Your task to perform on an android device: Clear the shopping cart on ebay. Add "macbook pro 13 inch" to the cart on ebay Image 0: 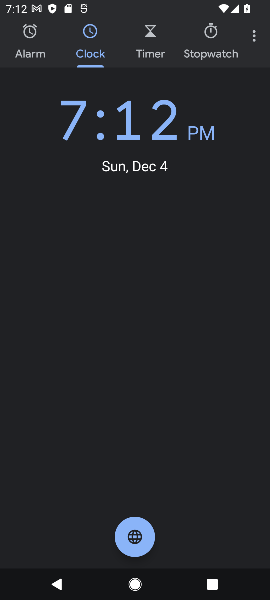
Step 0: press home button
Your task to perform on an android device: Clear the shopping cart on ebay. Add "macbook pro 13 inch" to the cart on ebay Image 1: 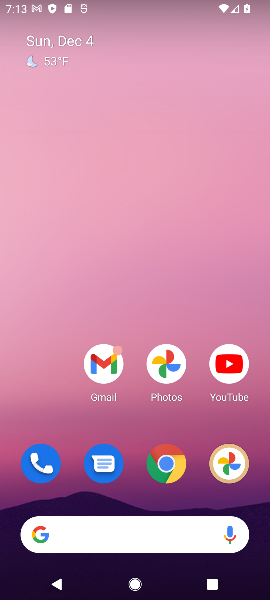
Step 1: click (108, 549)
Your task to perform on an android device: Clear the shopping cart on ebay. Add "macbook pro 13 inch" to the cart on ebay Image 2: 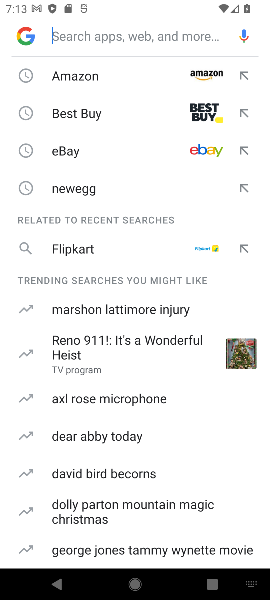
Step 2: click (108, 159)
Your task to perform on an android device: Clear the shopping cart on ebay. Add "macbook pro 13 inch" to the cart on ebay Image 3: 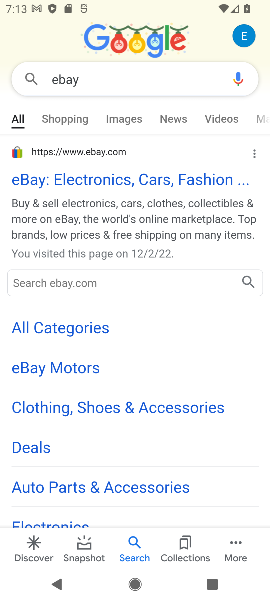
Step 3: click (166, 187)
Your task to perform on an android device: Clear the shopping cart on ebay. Add "macbook pro 13 inch" to the cart on ebay Image 4: 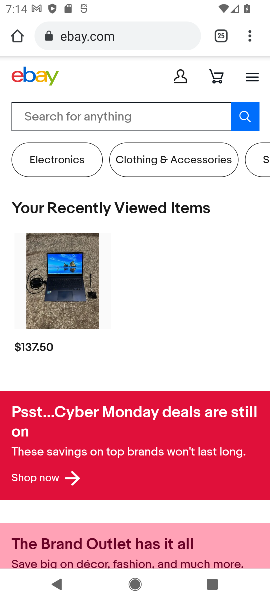
Step 4: click (137, 116)
Your task to perform on an android device: Clear the shopping cart on ebay. Add "macbook pro 13 inch" to the cart on ebay Image 5: 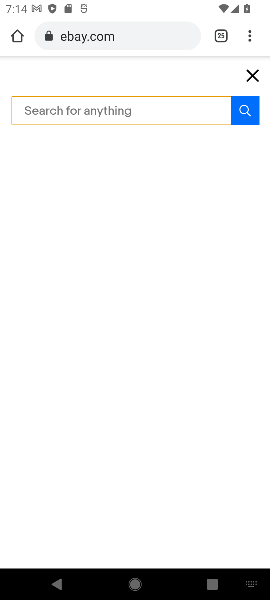
Step 5: type "macbook opro"
Your task to perform on an android device: Clear the shopping cart on ebay. Add "macbook pro 13 inch" to the cart on ebay Image 6: 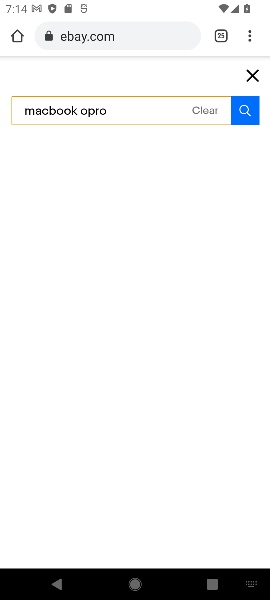
Step 6: click (242, 116)
Your task to perform on an android device: Clear the shopping cart on ebay. Add "macbook pro 13 inch" to the cart on ebay Image 7: 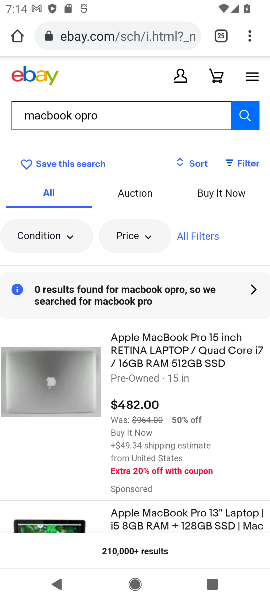
Step 7: task complete